Your task to perform on an android device: turn off priority inbox in the gmail app Image 0: 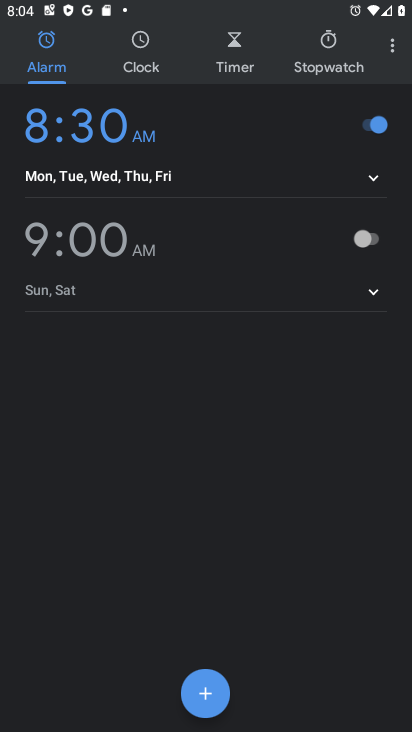
Step 0: press home button
Your task to perform on an android device: turn off priority inbox in the gmail app Image 1: 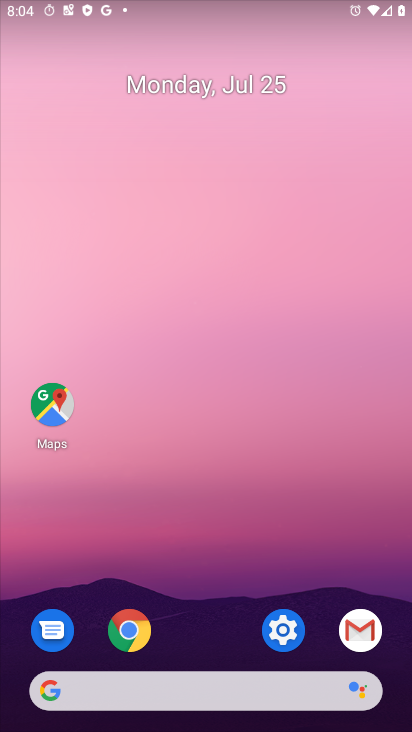
Step 1: click (357, 619)
Your task to perform on an android device: turn off priority inbox in the gmail app Image 2: 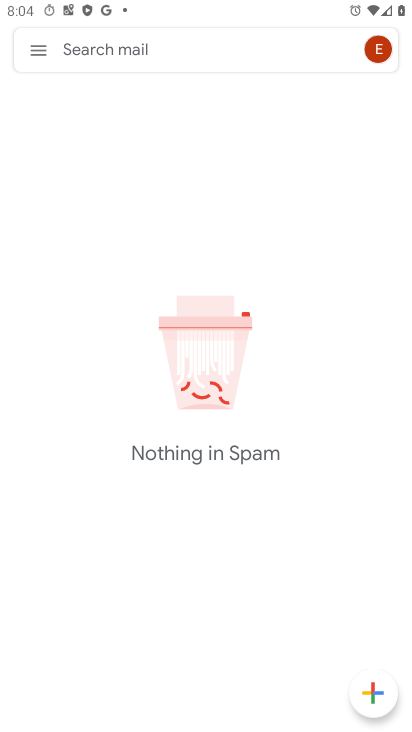
Step 2: click (33, 47)
Your task to perform on an android device: turn off priority inbox in the gmail app Image 3: 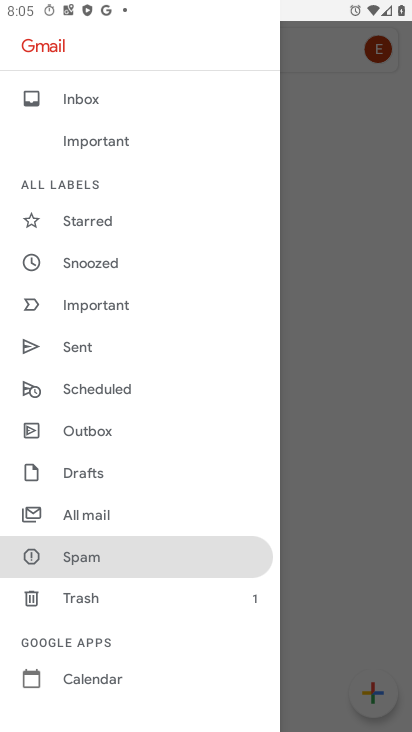
Step 3: drag from (92, 646) to (128, 537)
Your task to perform on an android device: turn off priority inbox in the gmail app Image 4: 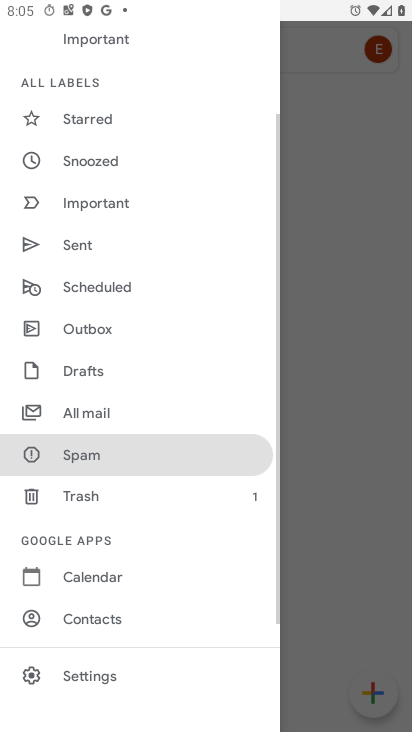
Step 4: click (80, 683)
Your task to perform on an android device: turn off priority inbox in the gmail app Image 5: 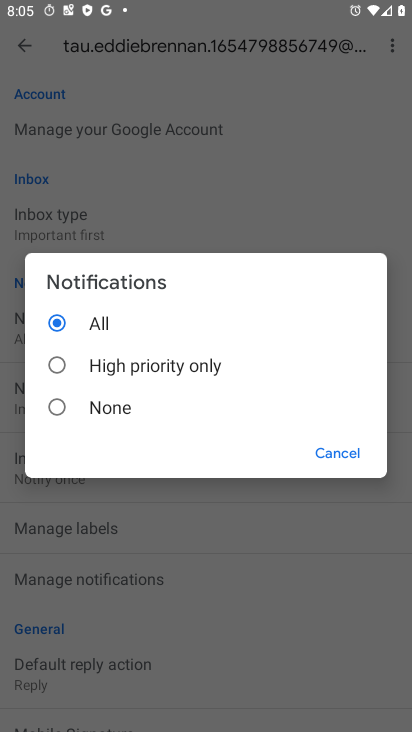
Step 5: click (194, 218)
Your task to perform on an android device: turn off priority inbox in the gmail app Image 6: 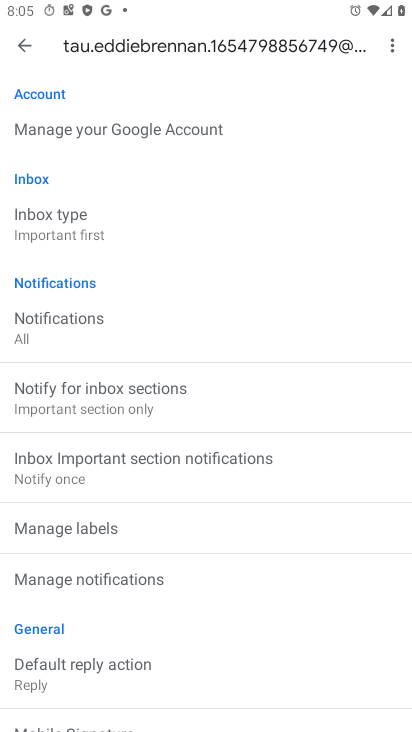
Step 6: click (60, 239)
Your task to perform on an android device: turn off priority inbox in the gmail app Image 7: 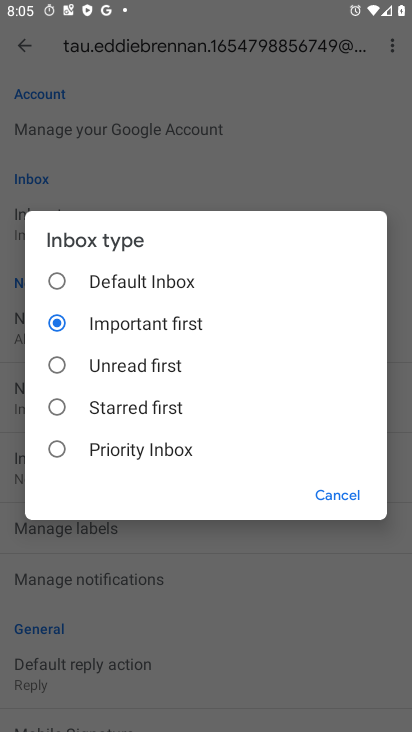
Step 7: click (113, 284)
Your task to perform on an android device: turn off priority inbox in the gmail app Image 8: 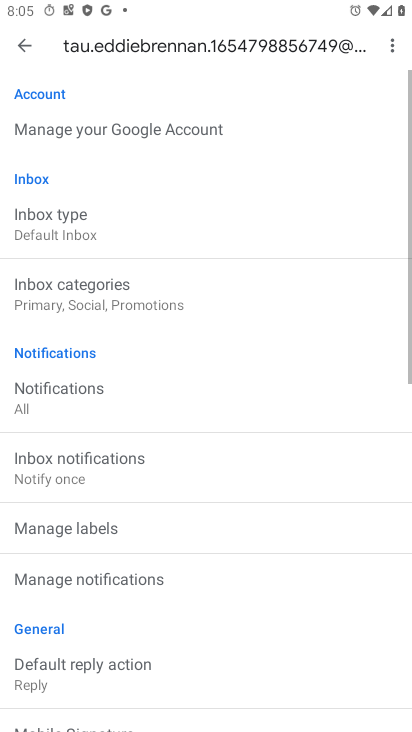
Step 8: click (56, 231)
Your task to perform on an android device: turn off priority inbox in the gmail app Image 9: 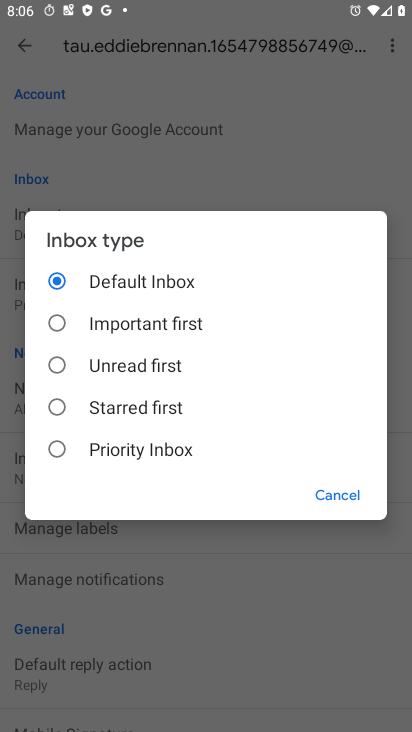
Step 9: task complete